Your task to perform on an android device: Open the Play Movies app and select the watchlist tab. Image 0: 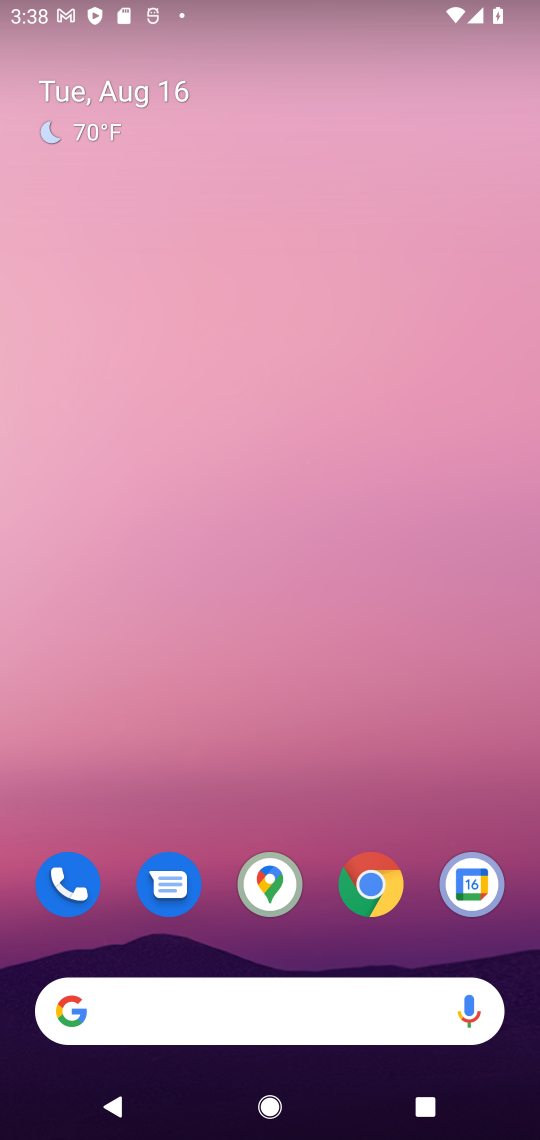
Step 0: drag from (286, 667) to (302, 74)
Your task to perform on an android device: Open the Play Movies app and select the watchlist tab. Image 1: 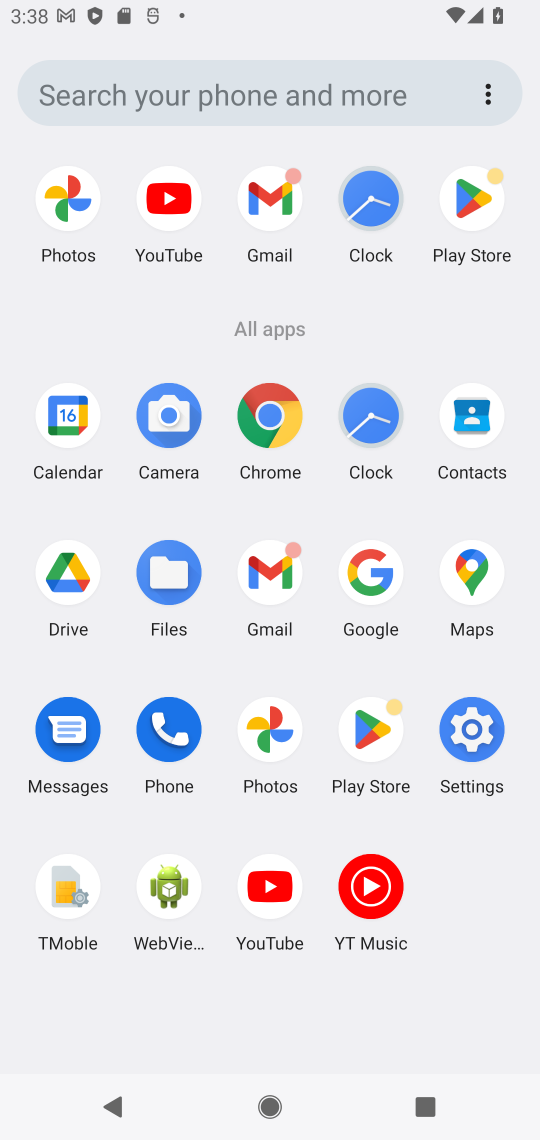
Step 1: task complete